Your task to perform on an android device: Search for seafood restaurants on Google Maps Image 0: 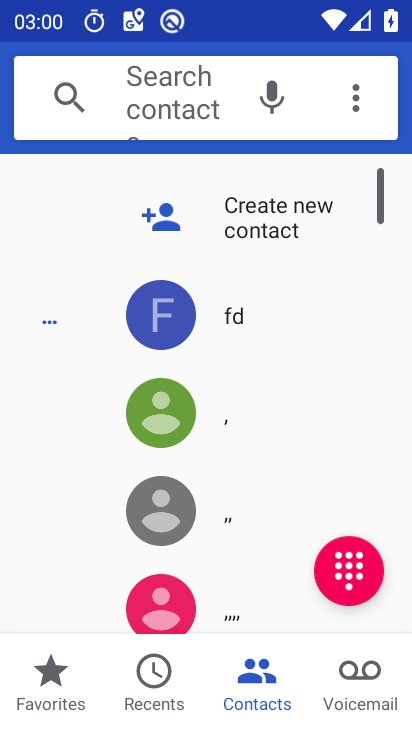
Step 0: press home button
Your task to perform on an android device: Search for seafood restaurants on Google Maps Image 1: 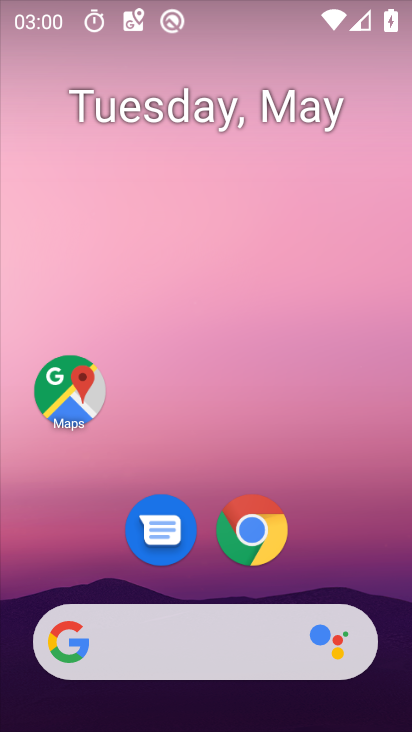
Step 1: click (64, 397)
Your task to perform on an android device: Search for seafood restaurants on Google Maps Image 2: 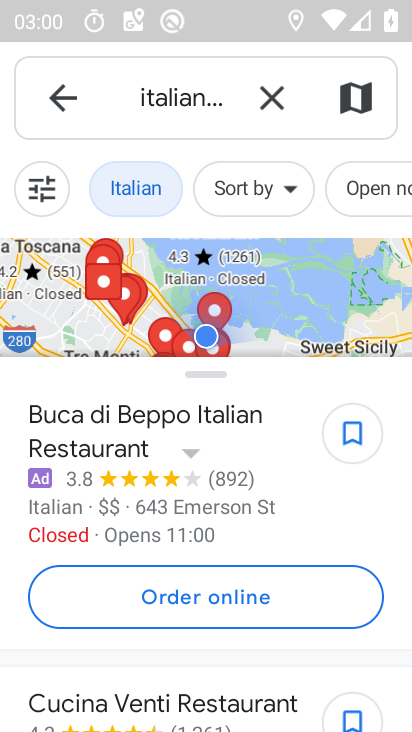
Step 2: click (273, 94)
Your task to perform on an android device: Search for seafood restaurants on Google Maps Image 3: 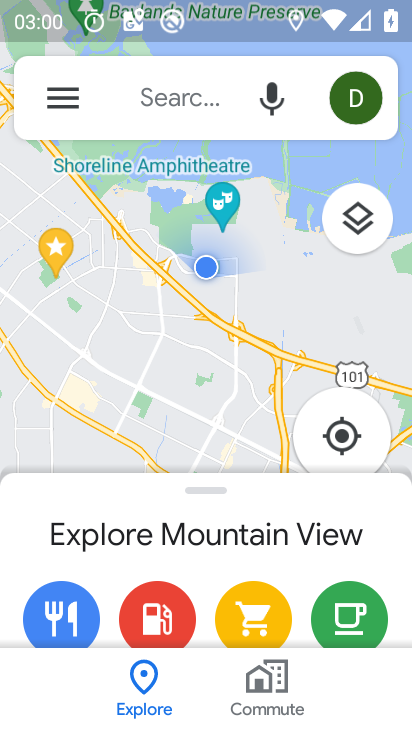
Step 3: click (174, 97)
Your task to perform on an android device: Search for seafood restaurants on Google Maps Image 4: 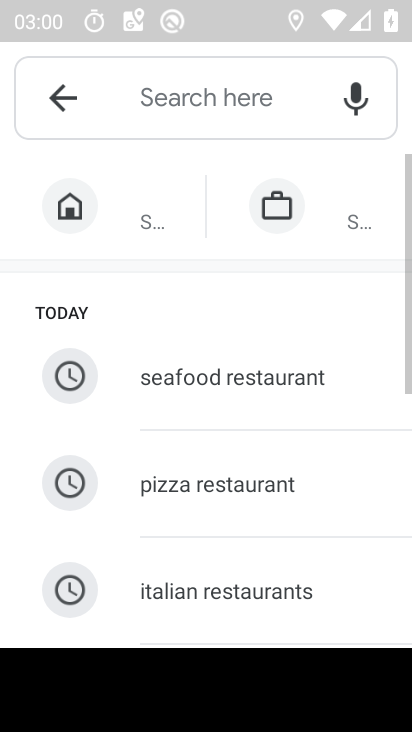
Step 4: click (170, 382)
Your task to perform on an android device: Search for seafood restaurants on Google Maps Image 5: 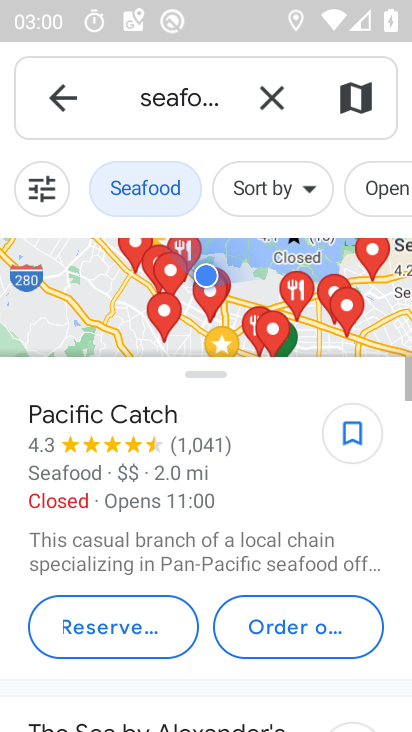
Step 5: task complete